Your task to perform on an android device: check battery use Image 0: 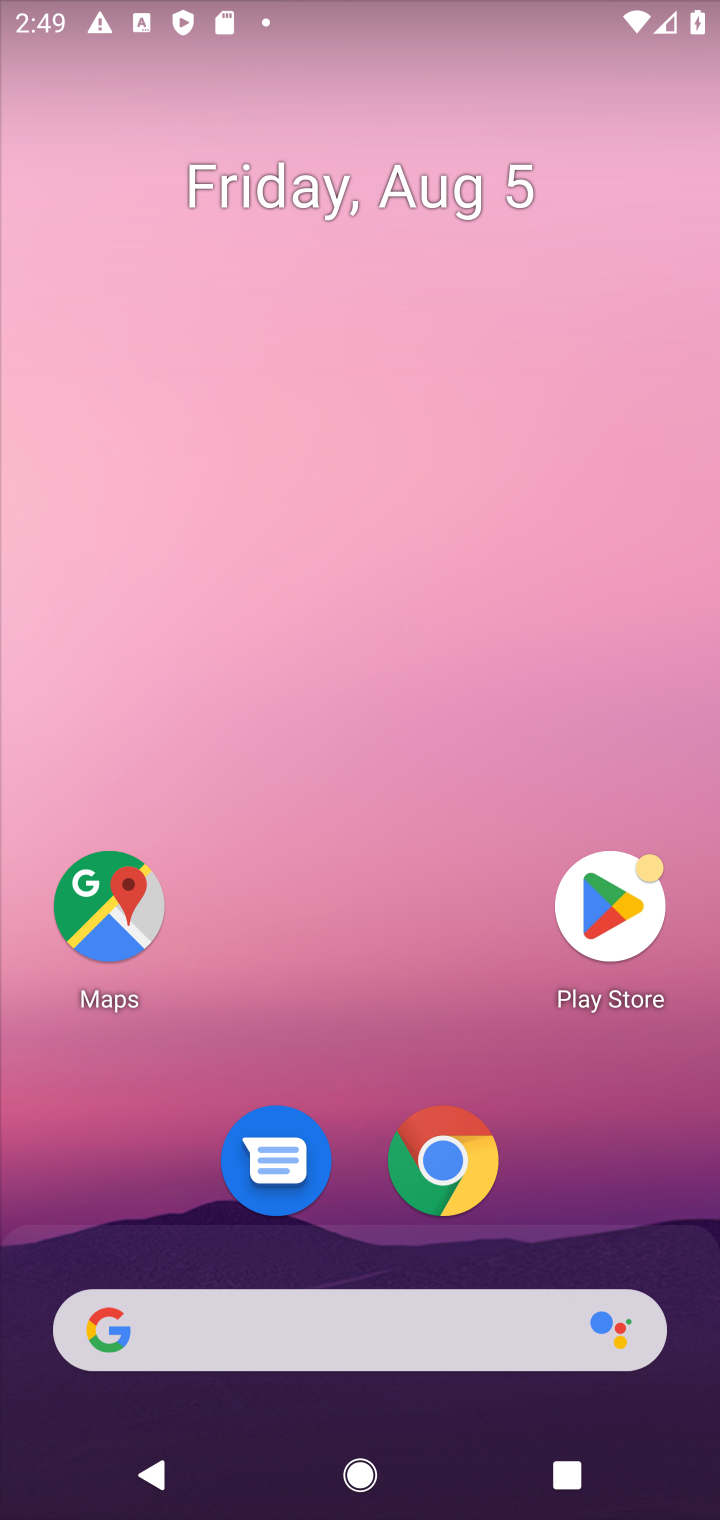
Step 0: drag from (350, 871) to (350, 105)
Your task to perform on an android device: check battery use Image 1: 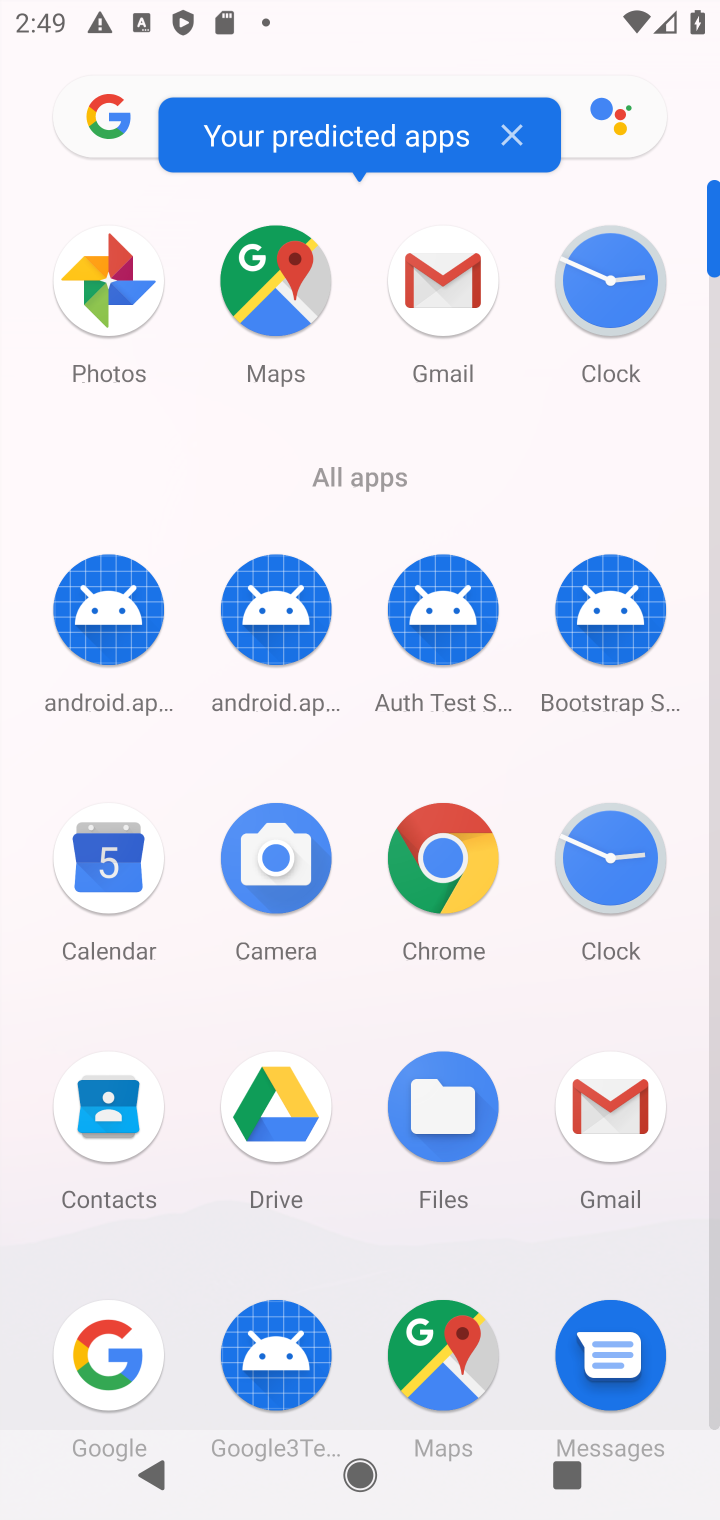
Step 1: drag from (346, 858) to (335, 253)
Your task to perform on an android device: check battery use Image 2: 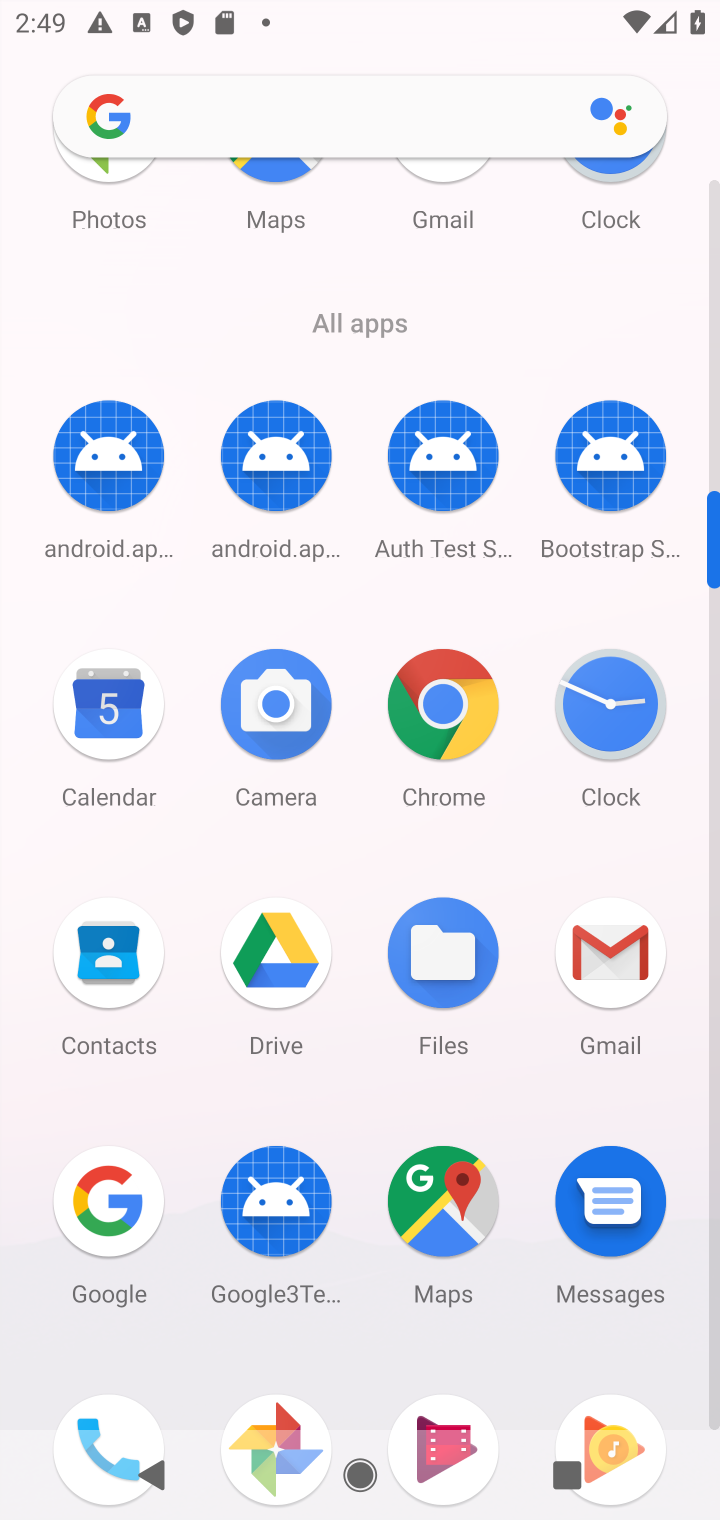
Step 2: drag from (329, 1087) to (307, 454)
Your task to perform on an android device: check battery use Image 3: 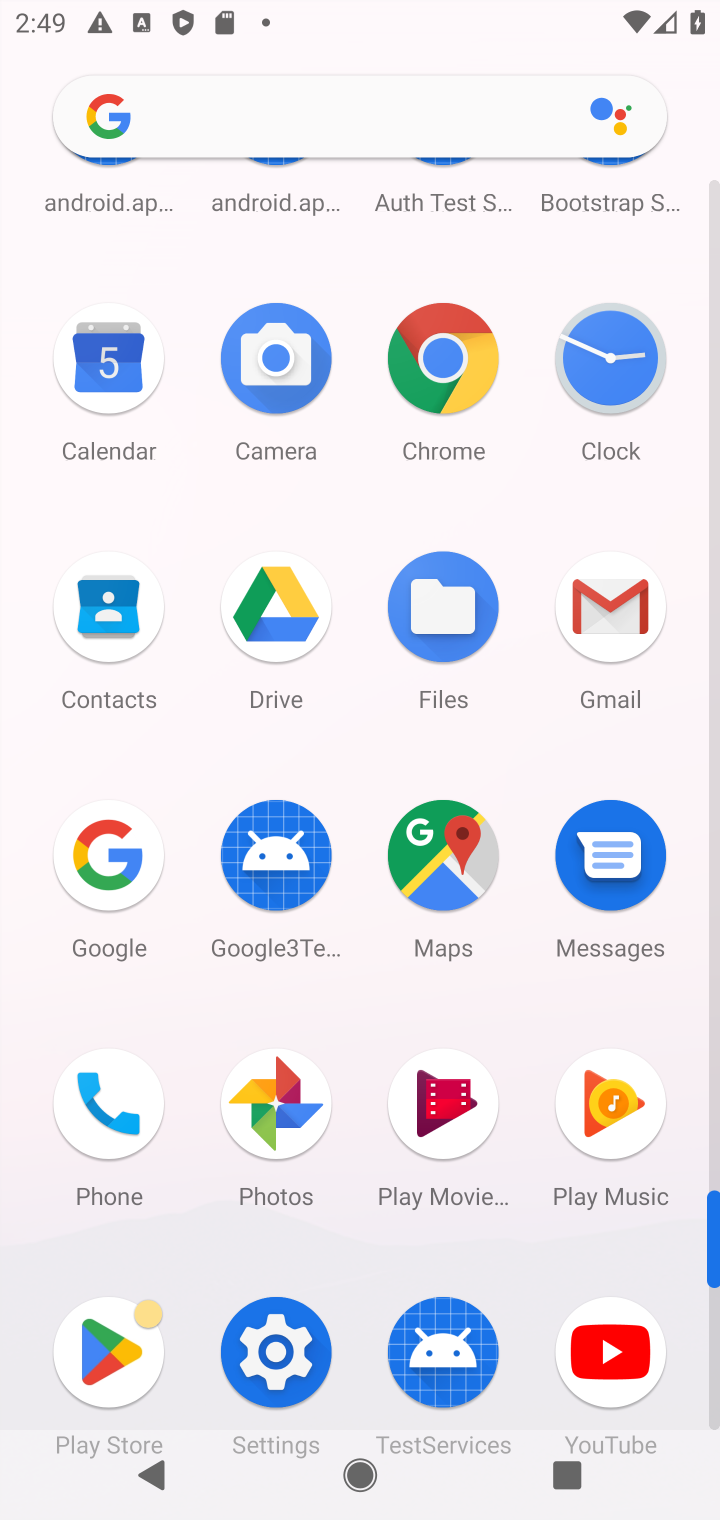
Step 3: click (255, 1362)
Your task to perform on an android device: check battery use Image 4: 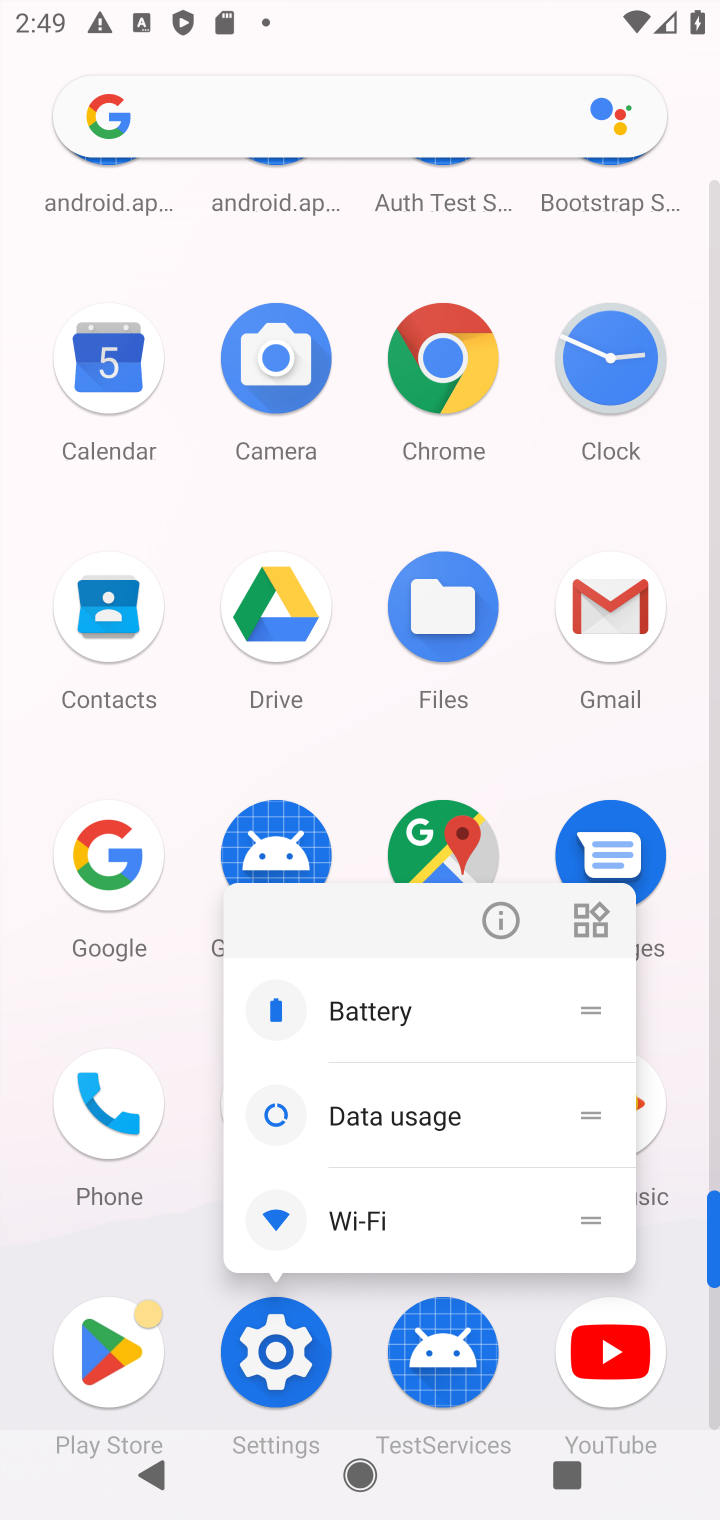
Step 4: click (255, 1362)
Your task to perform on an android device: check battery use Image 5: 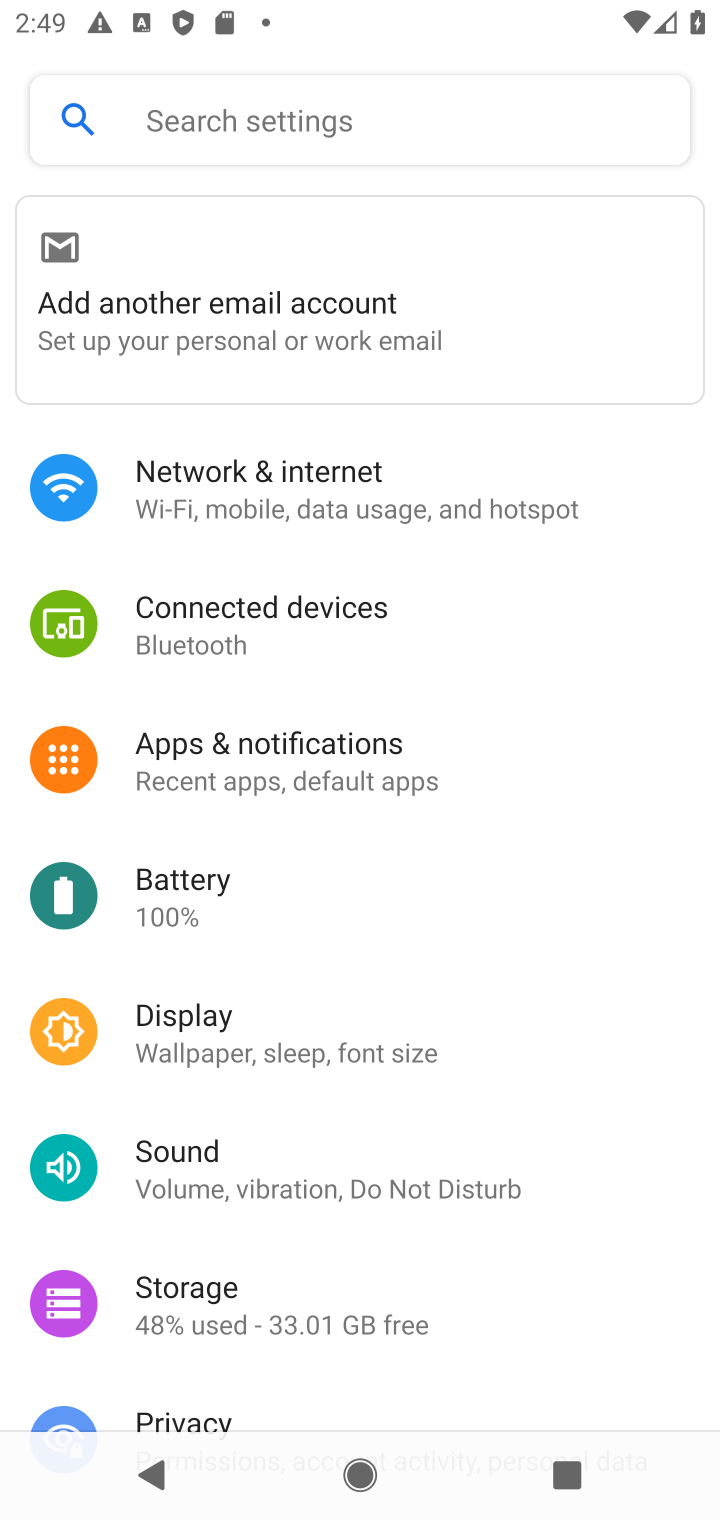
Step 5: click (218, 878)
Your task to perform on an android device: check battery use Image 6: 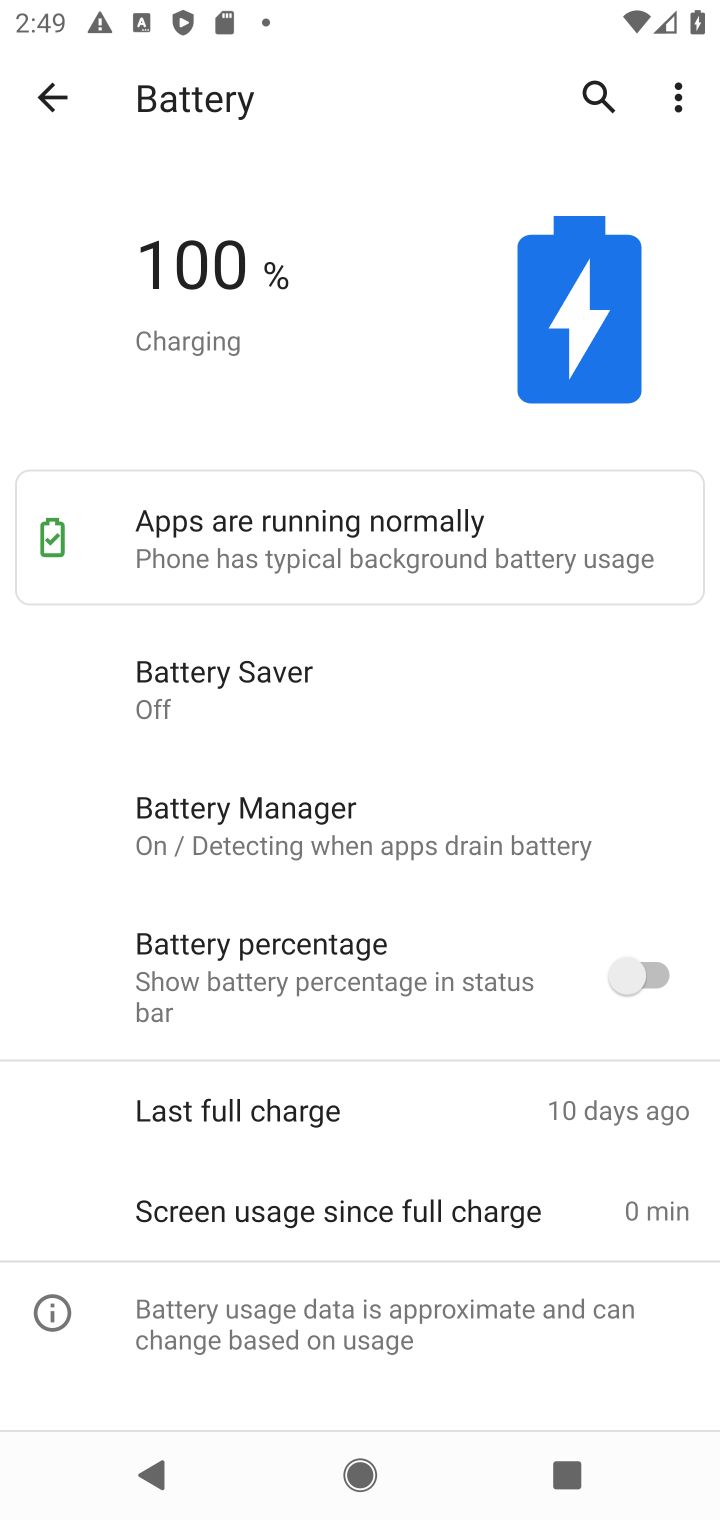
Step 6: click (685, 98)
Your task to perform on an android device: check battery use Image 7: 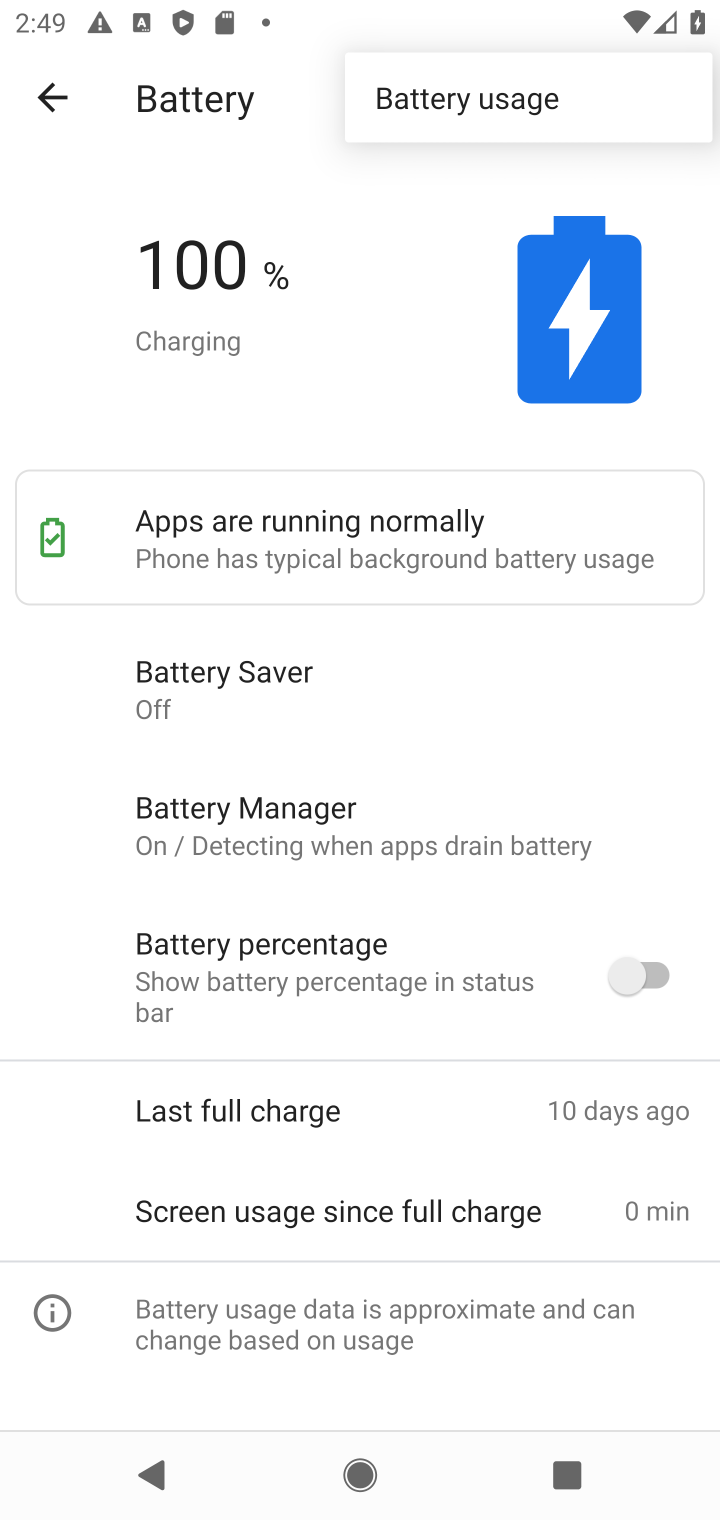
Step 7: click (562, 85)
Your task to perform on an android device: check battery use Image 8: 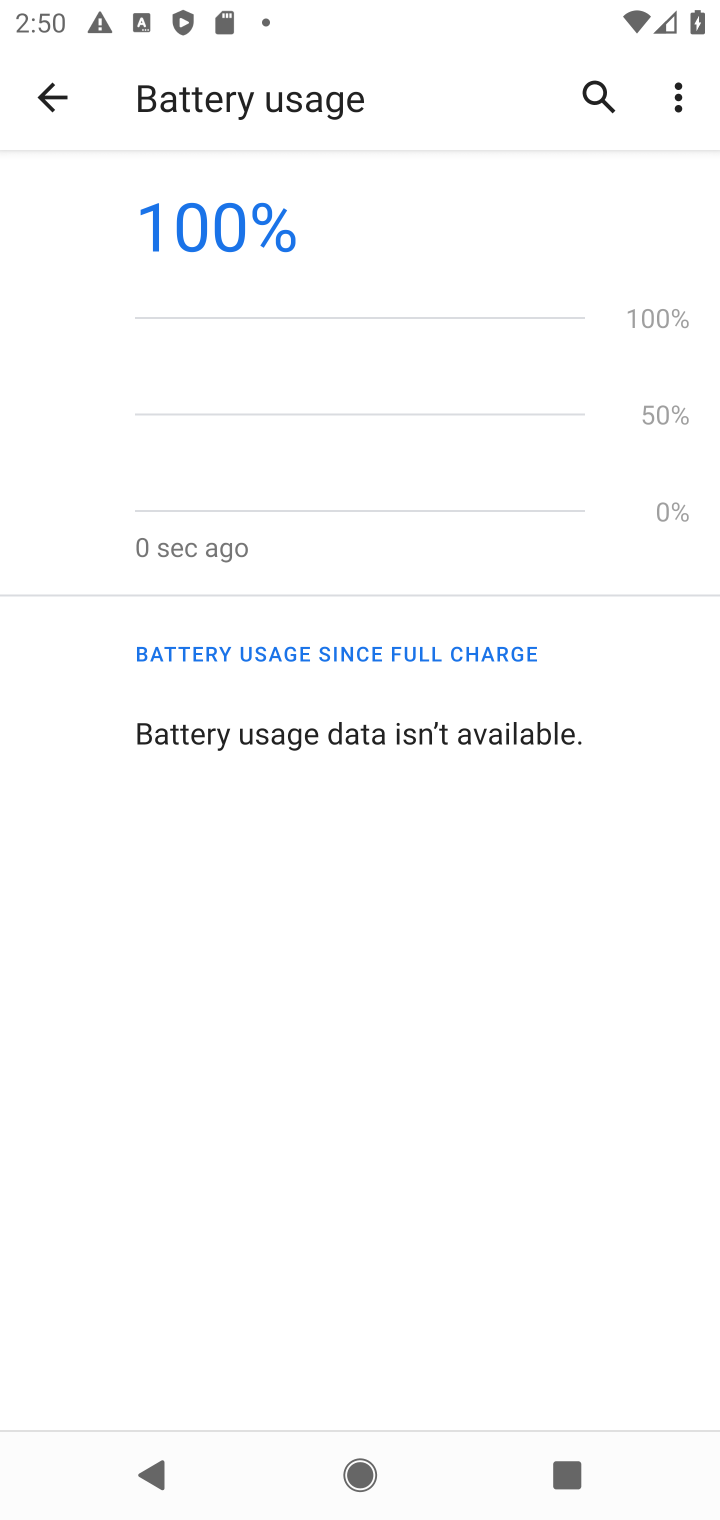
Step 8: task complete